Your task to perform on an android device: turn on bluetooth scan Image 0: 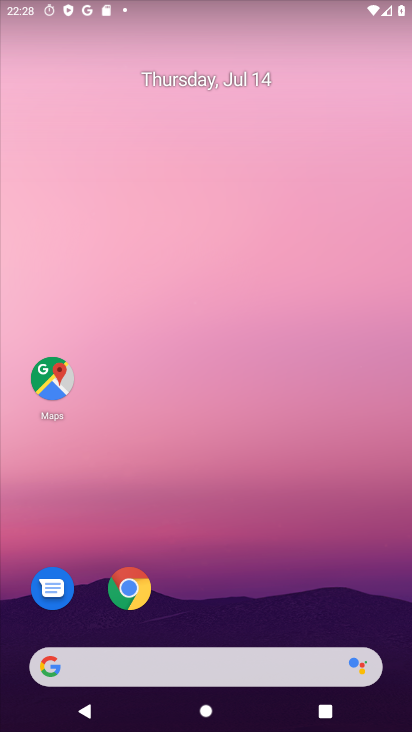
Step 0: drag from (220, 620) to (246, 148)
Your task to perform on an android device: turn on bluetooth scan Image 1: 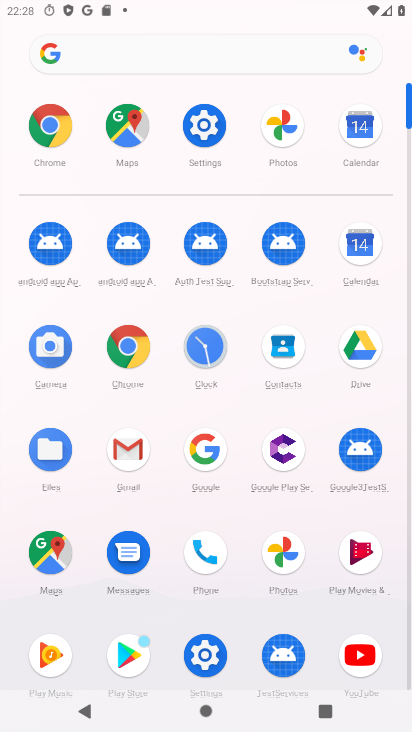
Step 1: click (206, 127)
Your task to perform on an android device: turn on bluetooth scan Image 2: 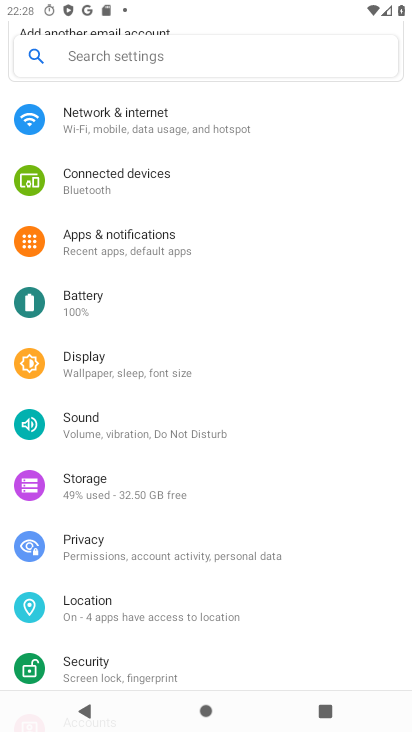
Step 2: click (104, 612)
Your task to perform on an android device: turn on bluetooth scan Image 3: 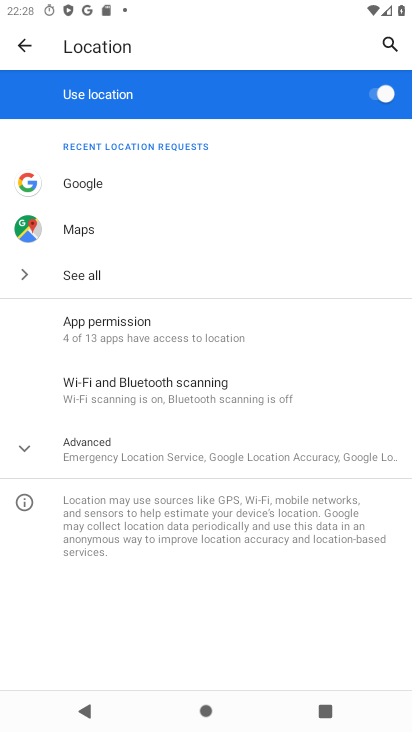
Step 3: click (173, 395)
Your task to perform on an android device: turn on bluetooth scan Image 4: 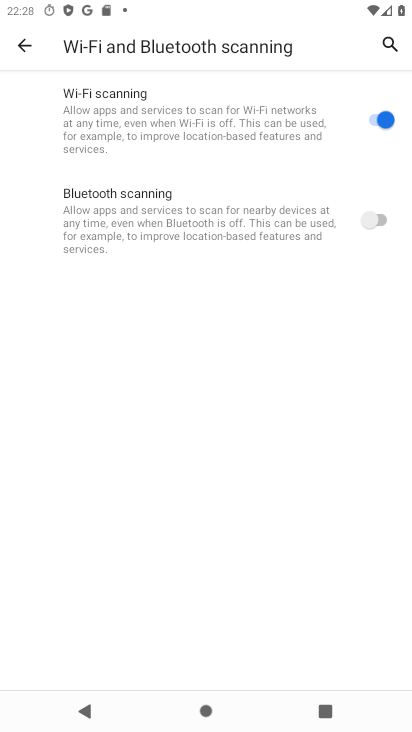
Step 4: click (377, 215)
Your task to perform on an android device: turn on bluetooth scan Image 5: 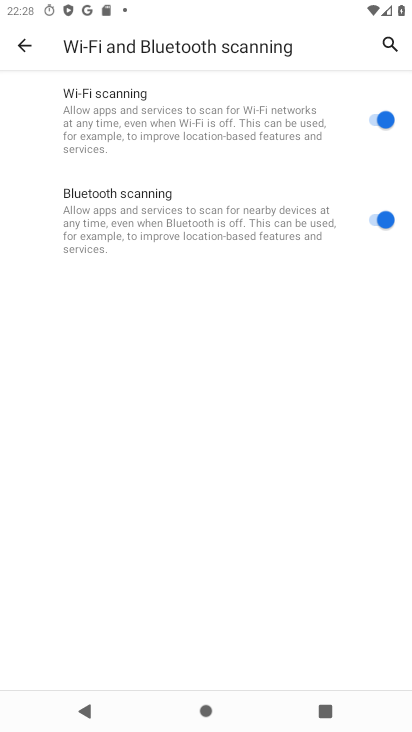
Step 5: task complete